Your task to perform on an android device: refresh tabs in the chrome app Image 0: 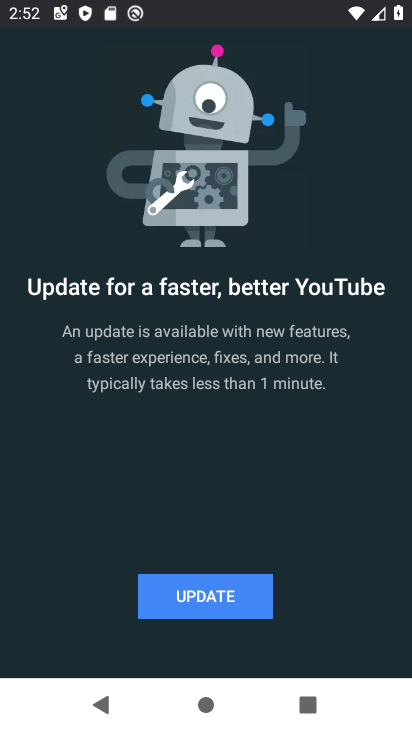
Step 0: press back button
Your task to perform on an android device: refresh tabs in the chrome app Image 1: 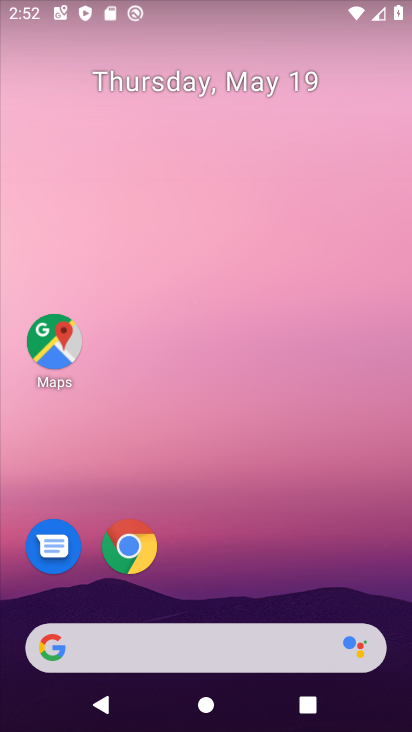
Step 1: click (128, 547)
Your task to perform on an android device: refresh tabs in the chrome app Image 2: 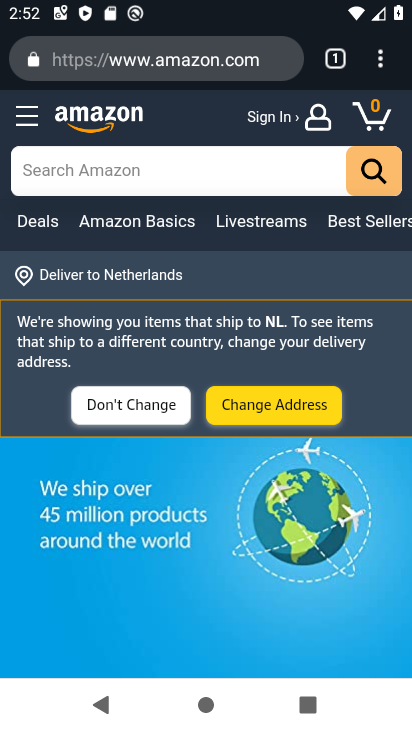
Step 2: click (382, 66)
Your task to perform on an android device: refresh tabs in the chrome app Image 3: 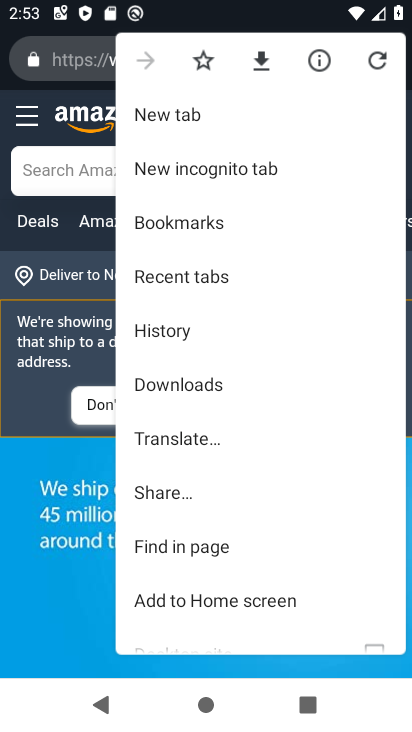
Step 3: click (379, 61)
Your task to perform on an android device: refresh tabs in the chrome app Image 4: 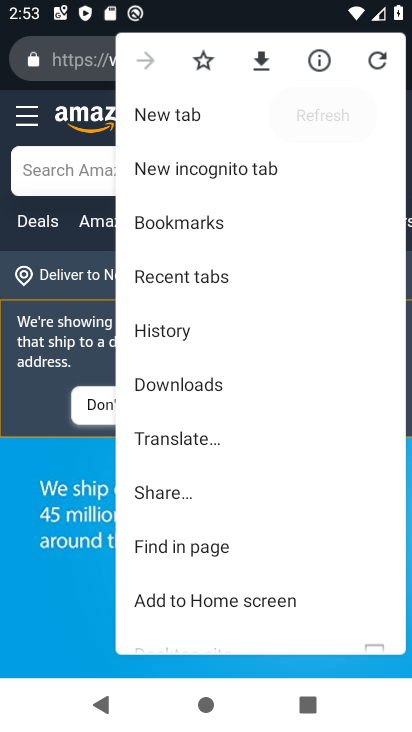
Step 4: click (373, 67)
Your task to perform on an android device: refresh tabs in the chrome app Image 5: 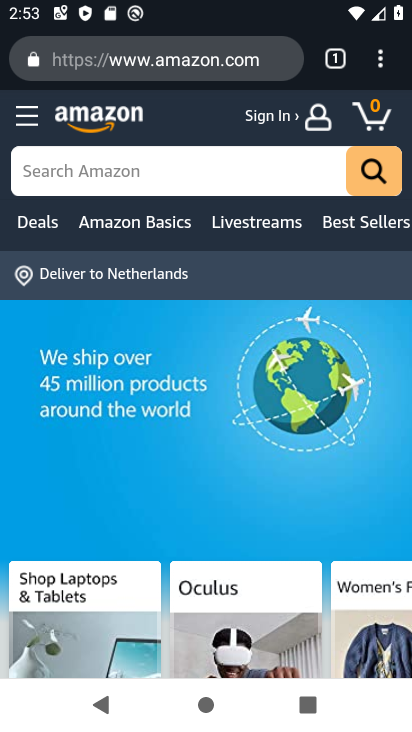
Step 5: task complete